Your task to perform on an android device: change the clock style Image 0: 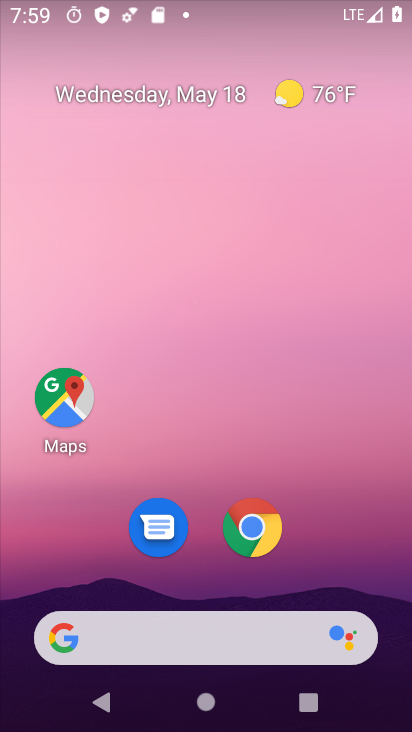
Step 0: drag from (394, 705) to (411, 63)
Your task to perform on an android device: change the clock style Image 1: 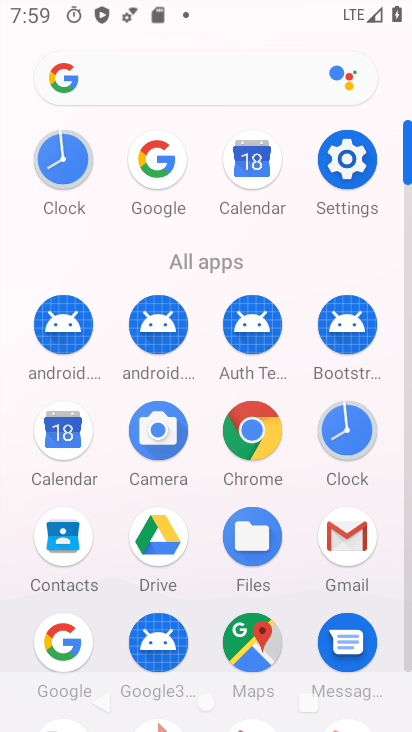
Step 1: click (338, 434)
Your task to perform on an android device: change the clock style Image 2: 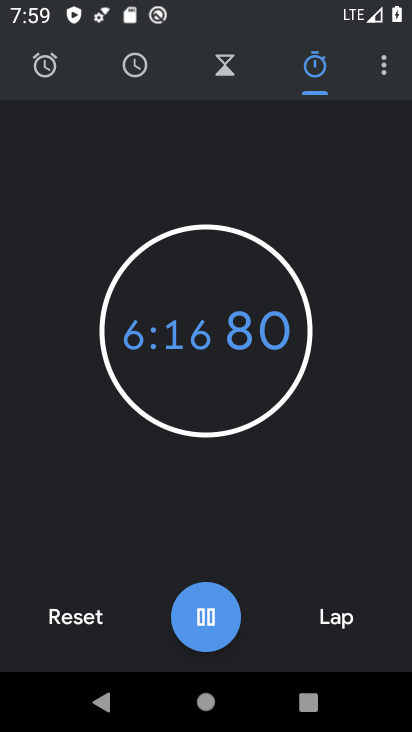
Step 2: click (380, 59)
Your task to perform on an android device: change the clock style Image 3: 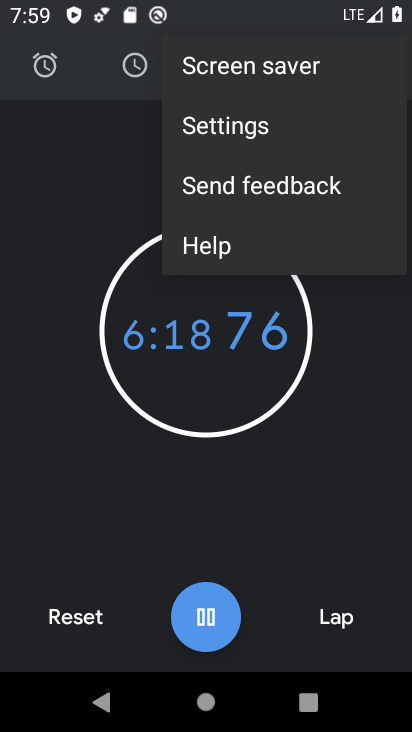
Step 3: click (212, 131)
Your task to perform on an android device: change the clock style Image 4: 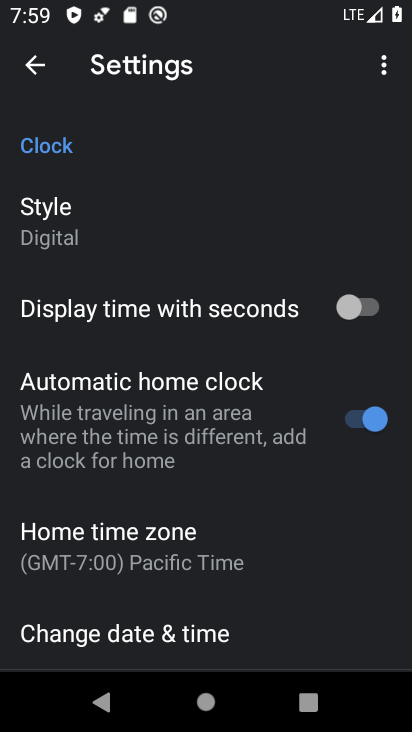
Step 4: click (50, 219)
Your task to perform on an android device: change the clock style Image 5: 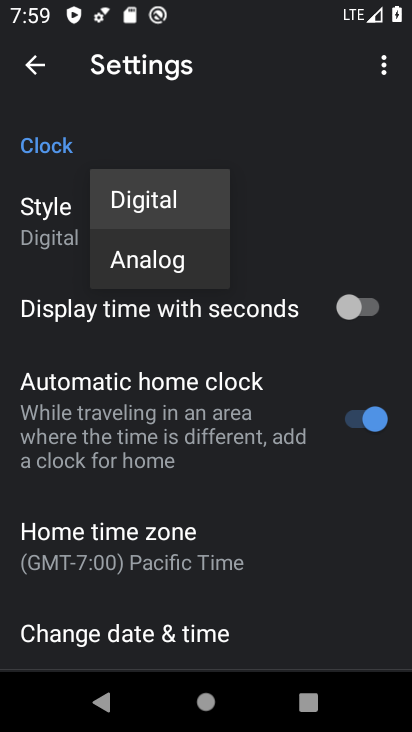
Step 5: click (148, 258)
Your task to perform on an android device: change the clock style Image 6: 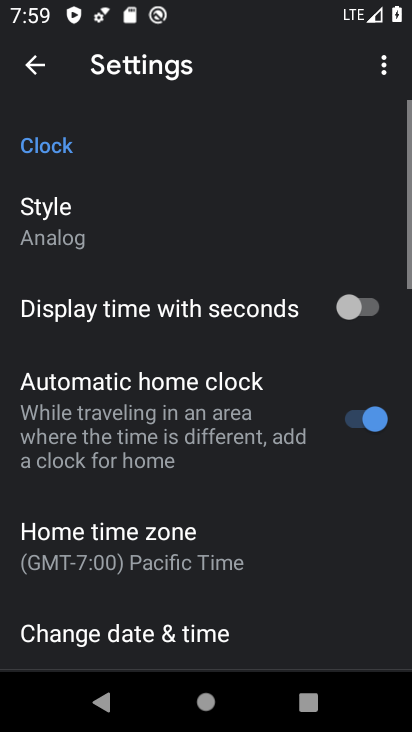
Step 6: task complete